Your task to perform on an android device: Clear all items from cart on target.com. Search for "asus rog" on target.com, select the first entry, add it to the cart, then select checkout. Image 0: 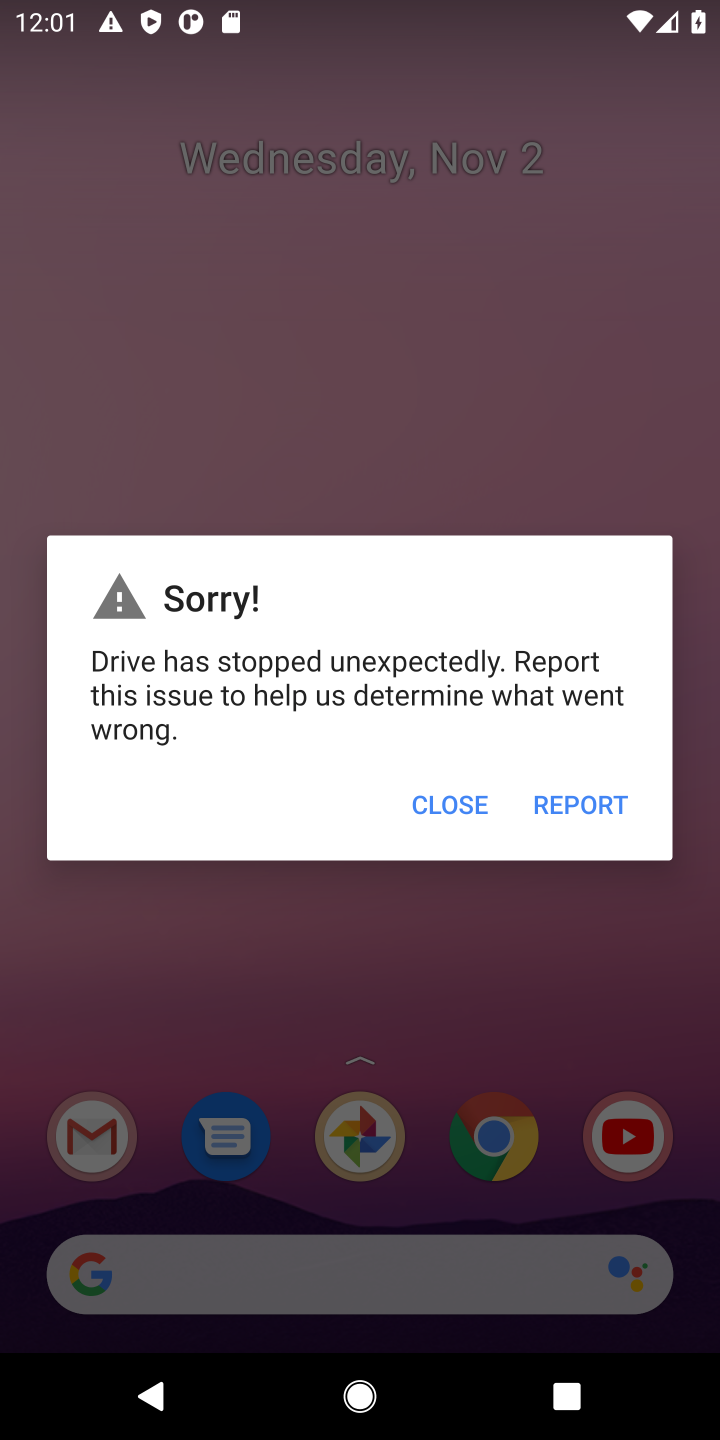
Step 0: click (455, 816)
Your task to perform on an android device: Clear all items from cart on target.com. Search for "asus rog" on target.com, select the first entry, add it to the cart, then select checkout. Image 1: 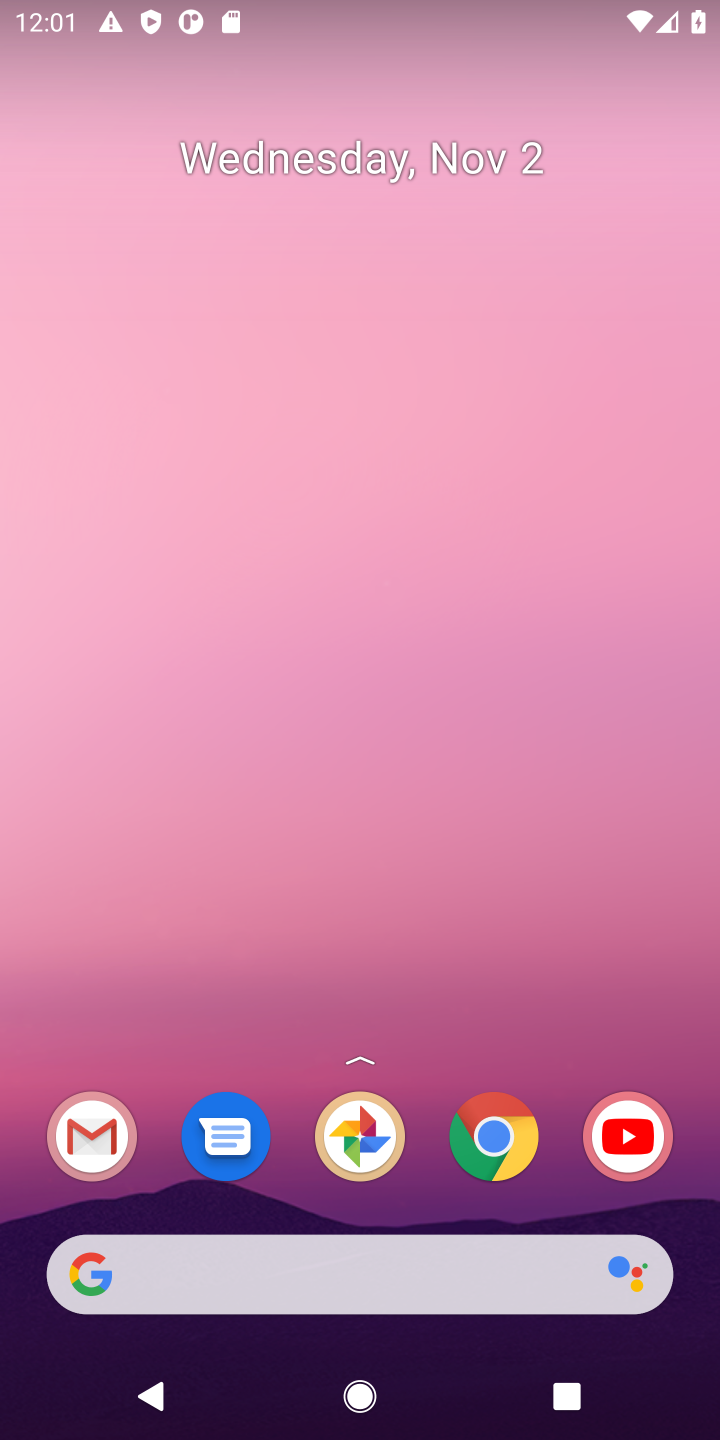
Step 1: click (491, 1151)
Your task to perform on an android device: Clear all items from cart on target.com. Search for "asus rog" on target.com, select the first entry, add it to the cart, then select checkout. Image 2: 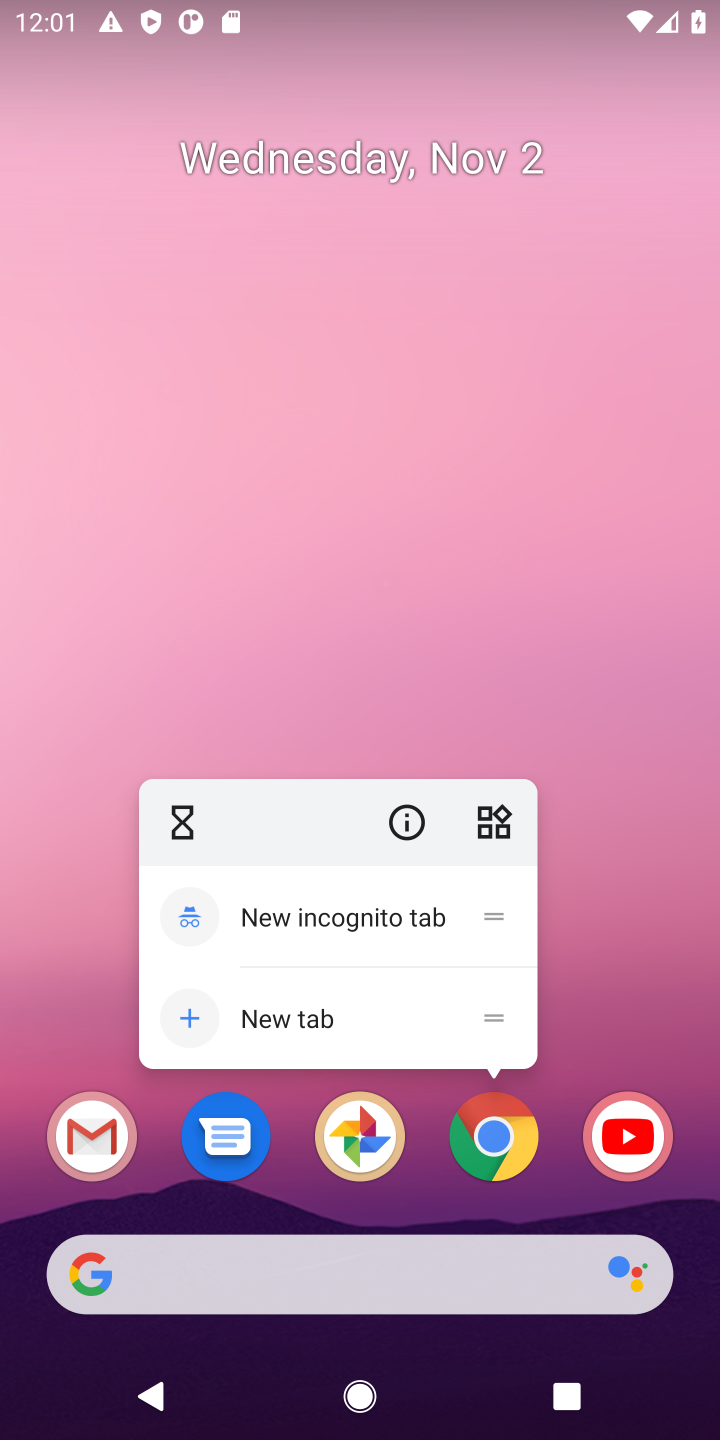
Step 2: click (504, 1137)
Your task to perform on an android device: Clear all items from cart on target.com. Search for "asus rog" on target.com, select the first entry, add it to the cart, then select checkout. Image 3: 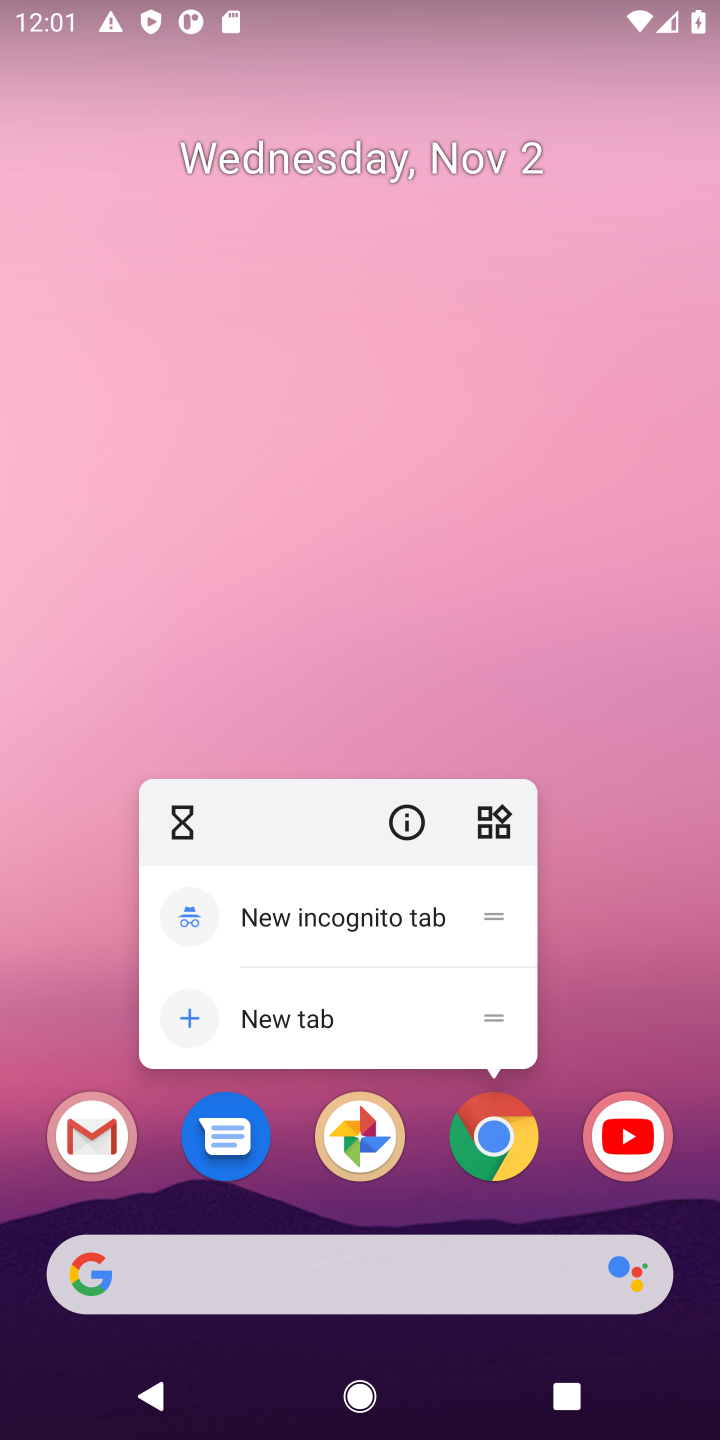
Step 3: click (491, 1138)
Your task to perform on an android device: Clear all items from cart on target.com. Search for "asus rog" on target.com, select the first entry, add it to the cart, then select checkout. Image 4: 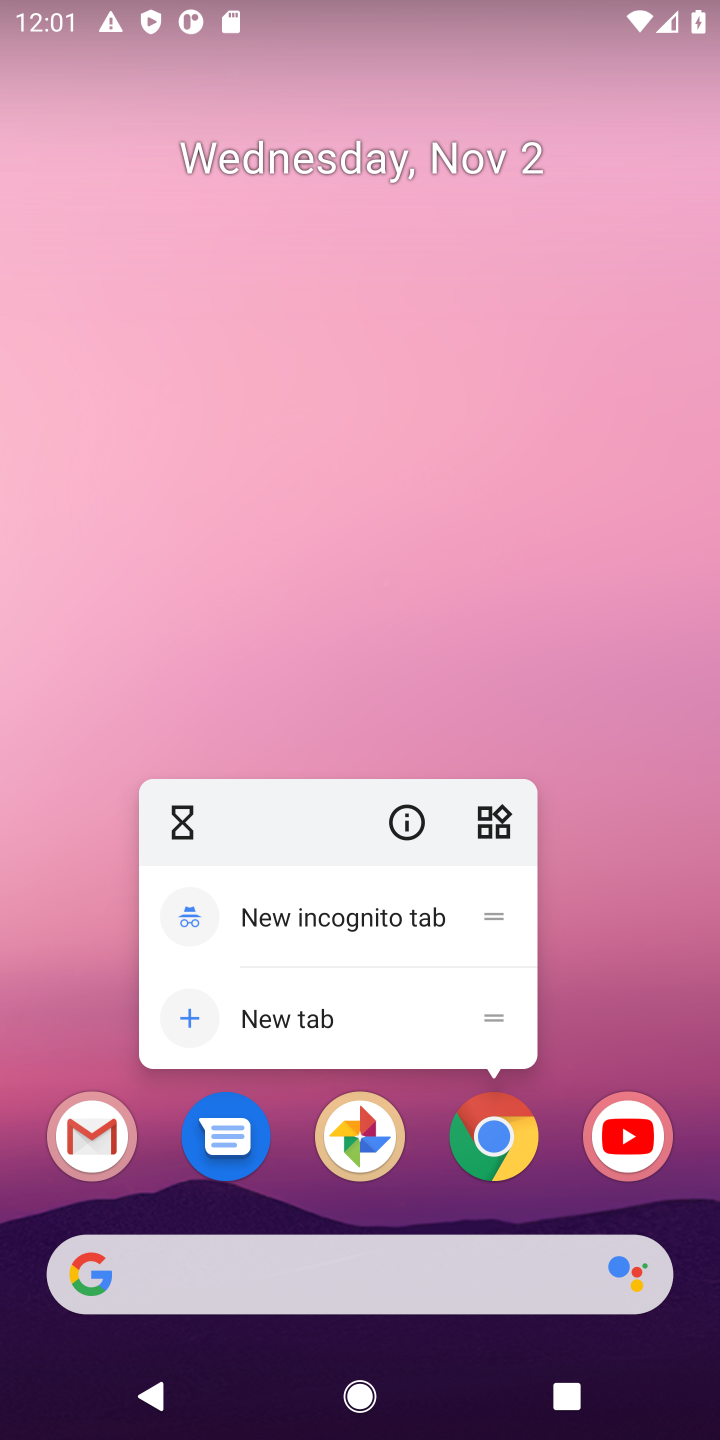
Step 4: click (496, 1143)
Your task to perform on an android device: Clear all items from cart on target.com. Search for "asus rog" on target.com, select the first entry, add it to the cart, then select checkout. Image 5: 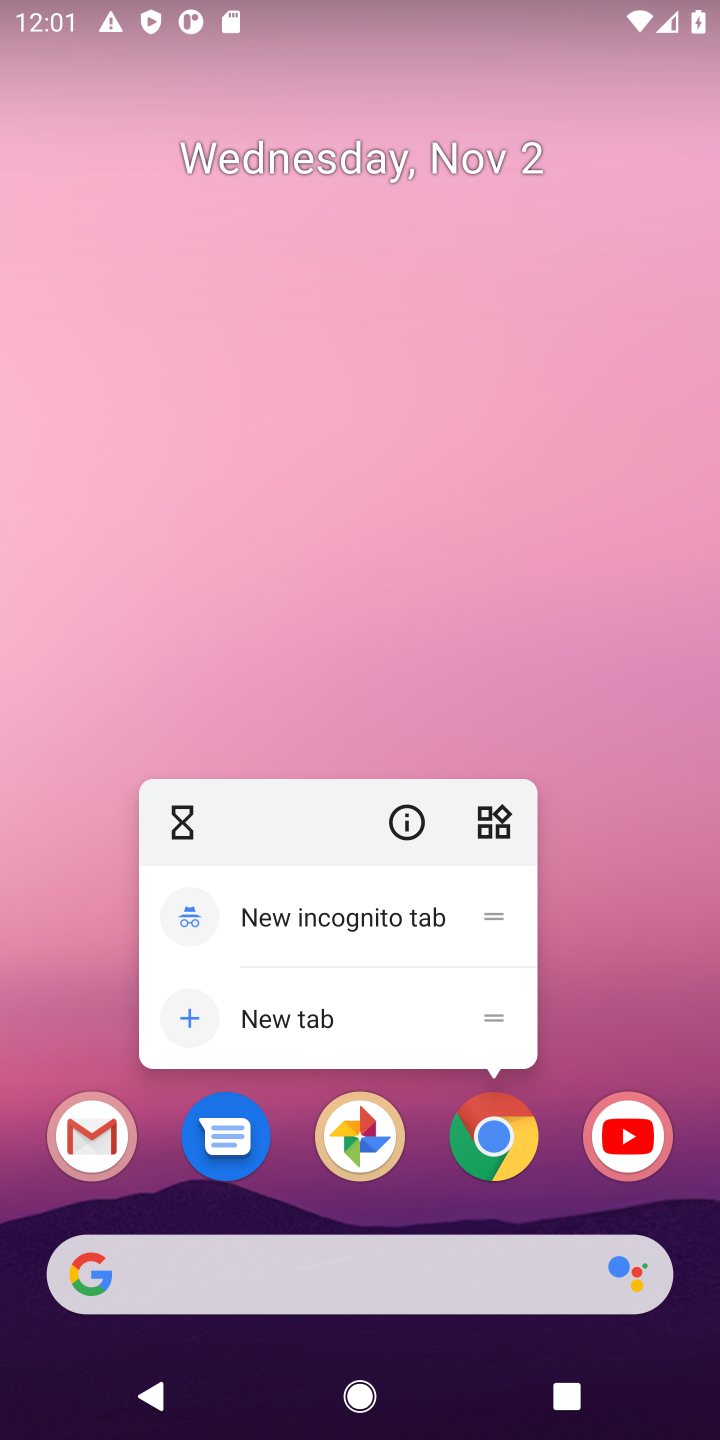
Step 5: click (496, 1143)
Your task to perform on an android device: Clear all items from cart on target.com. Search for "asus rog" on target.com, select the first entry, add it to the cart, then select checkout. Image 6: 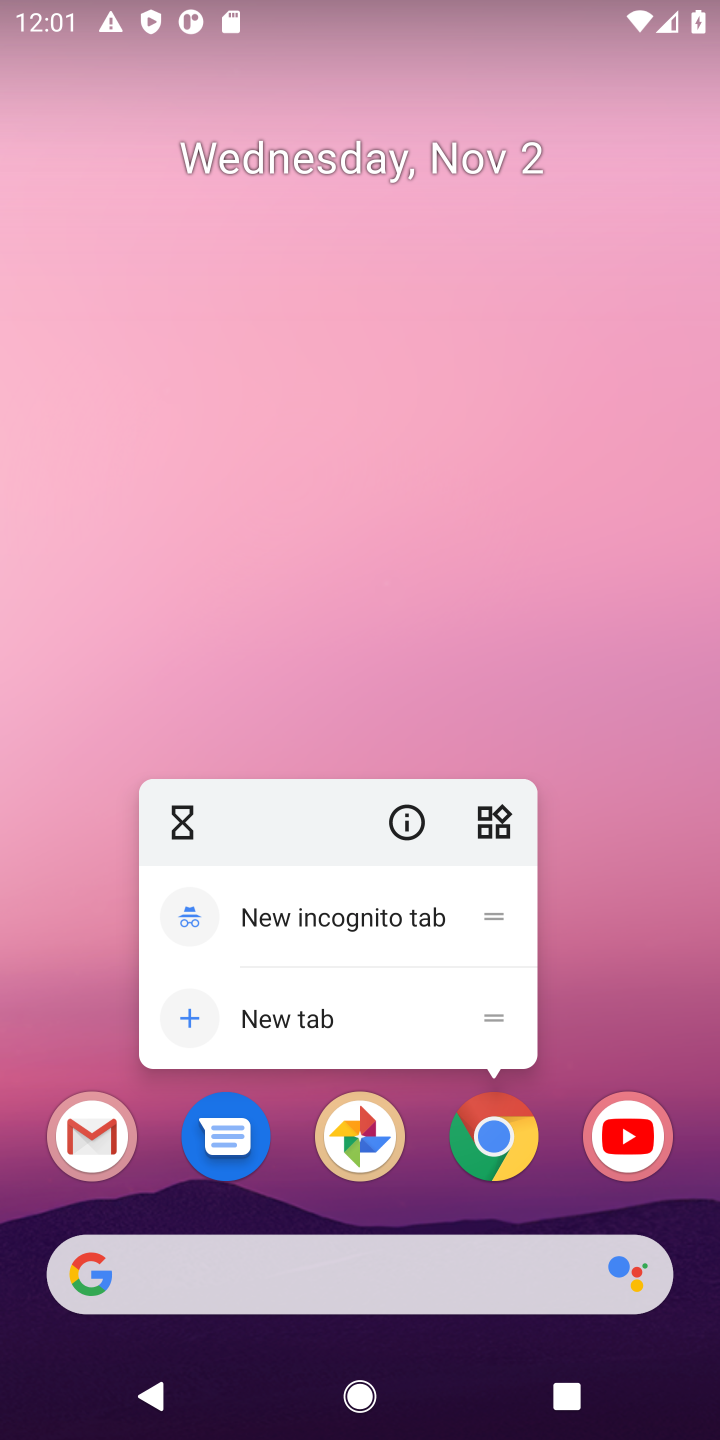
Step 6: click (496, 1143)
Your task to perform on an android device: Clear all items from cart on target.com. Search for "asus rog" on target.com, select the first entry, add it to the cart, then select checkout. Image 7: 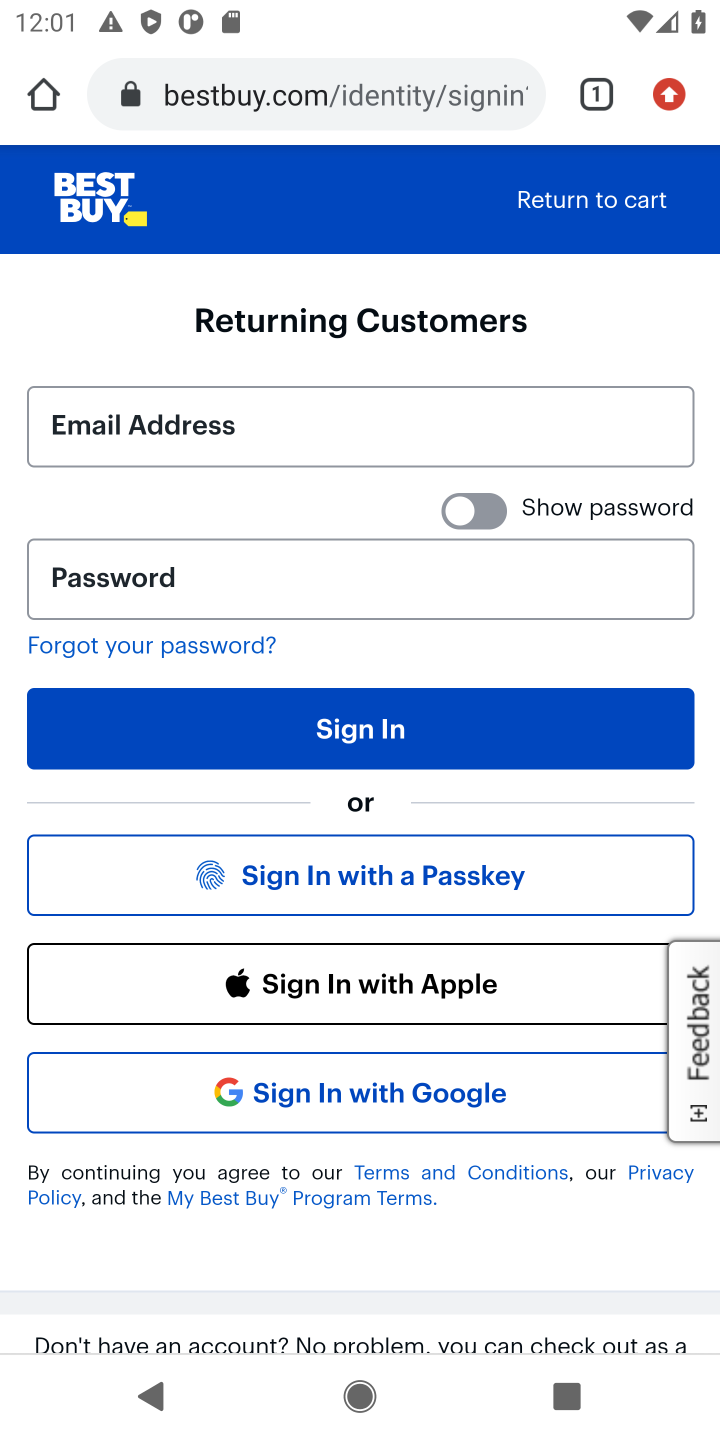
Step 7: click (306, 103)
Your task to perform on an android device: Clear all items from cart on target.com. Search for "asus rog" on target.com, select the first entry, add it to the cart, then select checkout. Image 8: 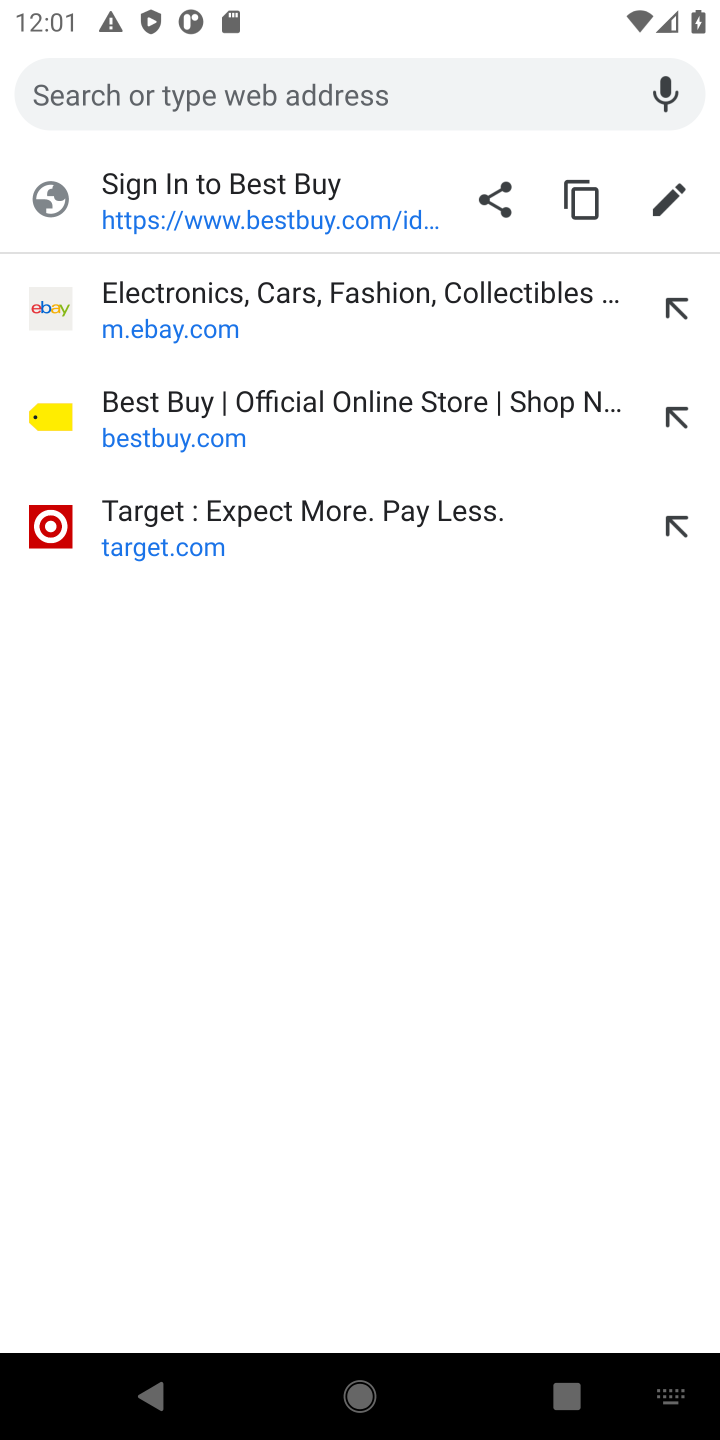
Step 8: click (157, 530)
Your task to perform on an android device: Clear all items from cart on target.com. Search for "asus rog" on target.com, select the first entry, add it to the cart, then select checkout. Image 9: 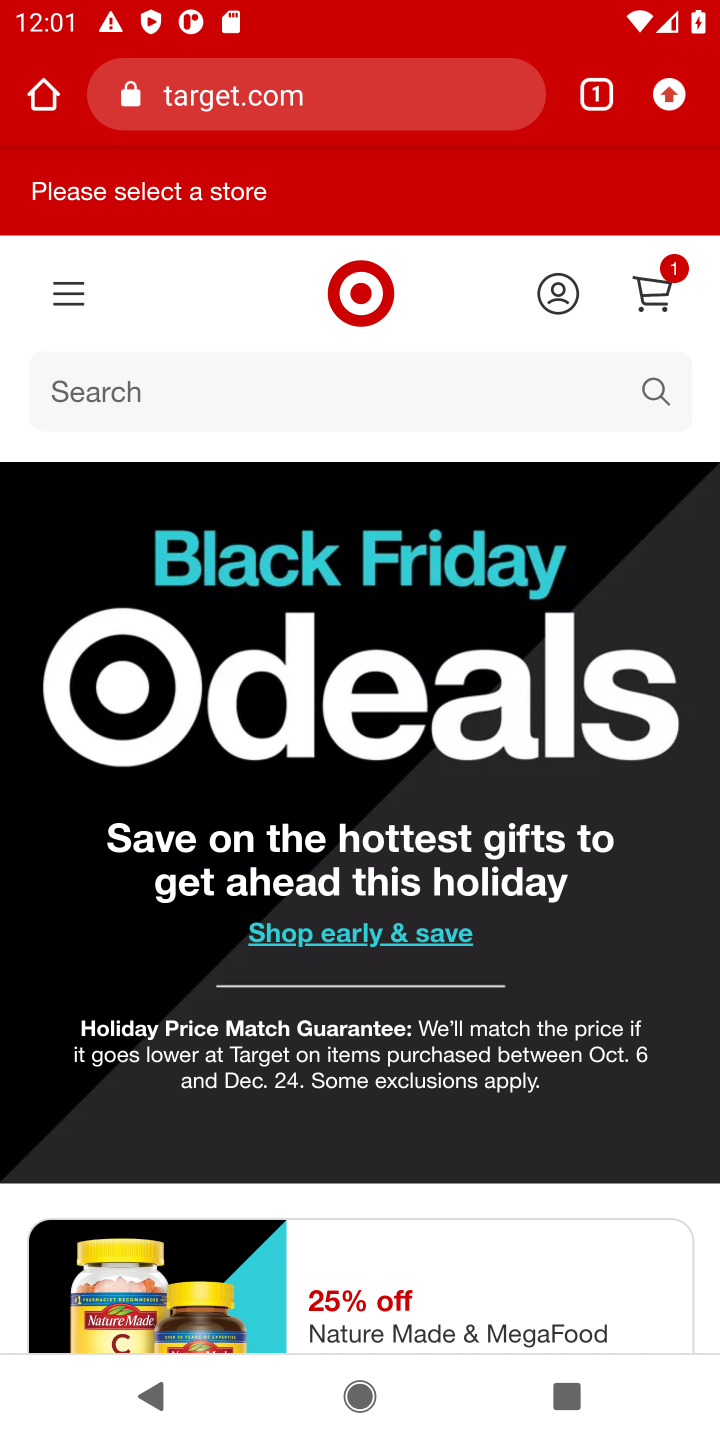
Step 9: click (644, 294)
Your task to perform on an android device: Clear all items from cart on target.com. Search for "asus rog" on target.com, select the first entry, add it to the cart, then select checkout. Image 10: 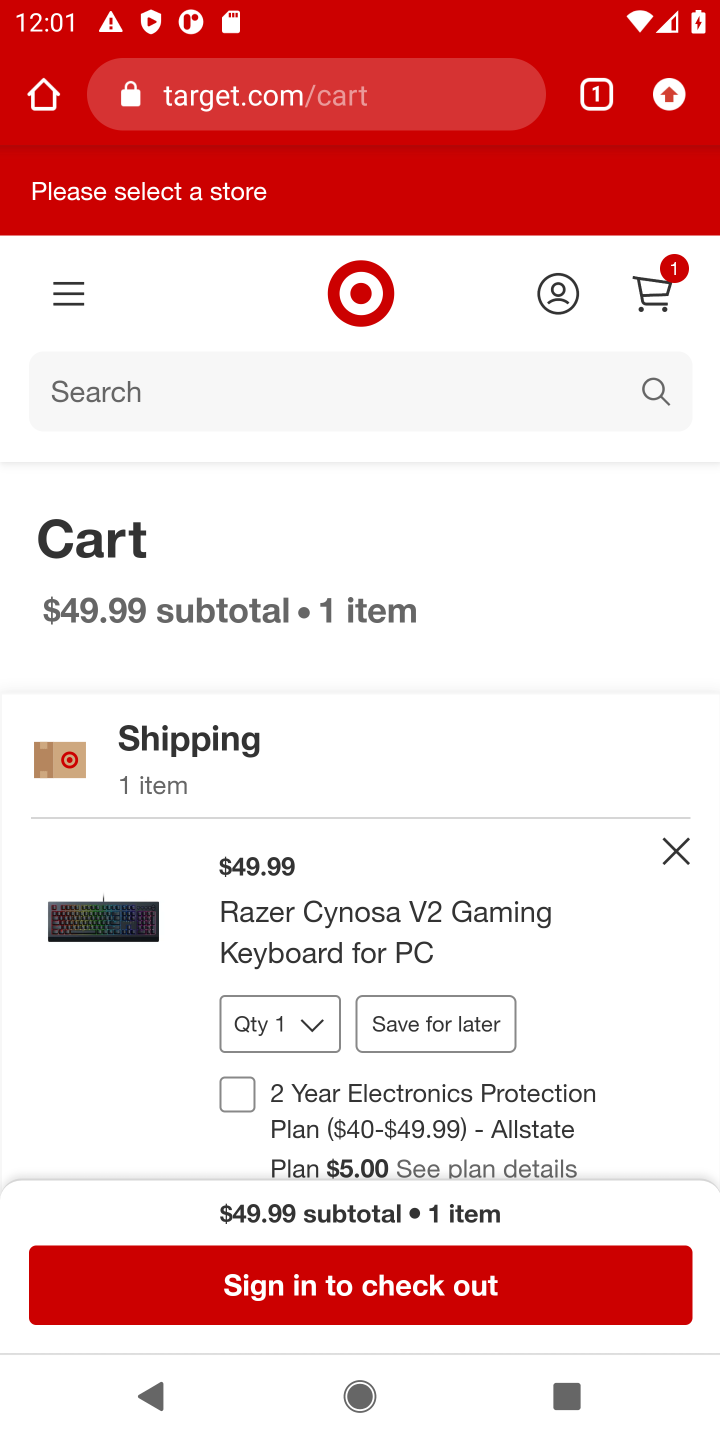
Step 10: click (286, 1031)
Your task to perform on an android device: Clear all items from cart on target.com. Search for "asus rog" on target.com, select the first entry, add it to the cart, then select checkout. Image 11: 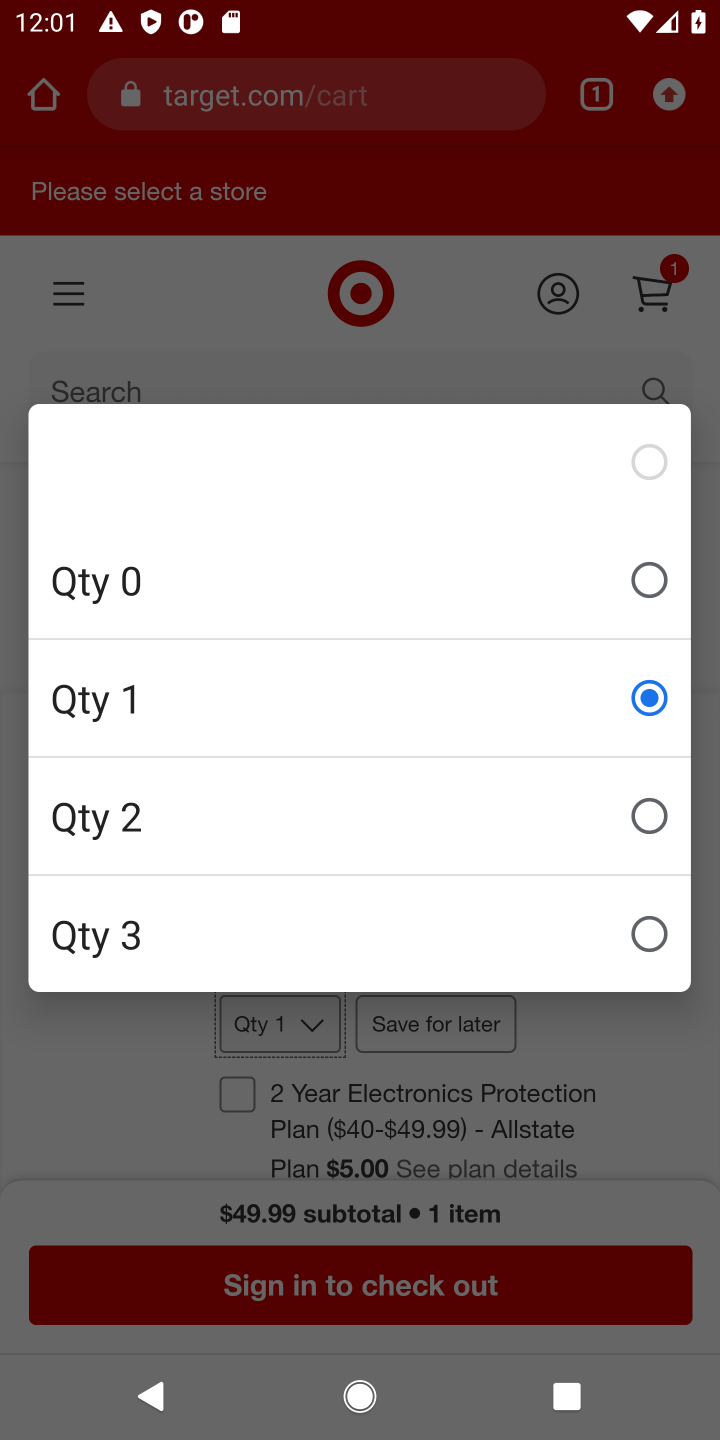
Step 11: click (348, 592)
Your task to perform on an android device: Clear all items from cart on target.com. Search for "asus rog" on target.com, select the first entry, add it to the cart, then select checkout. Image 12: 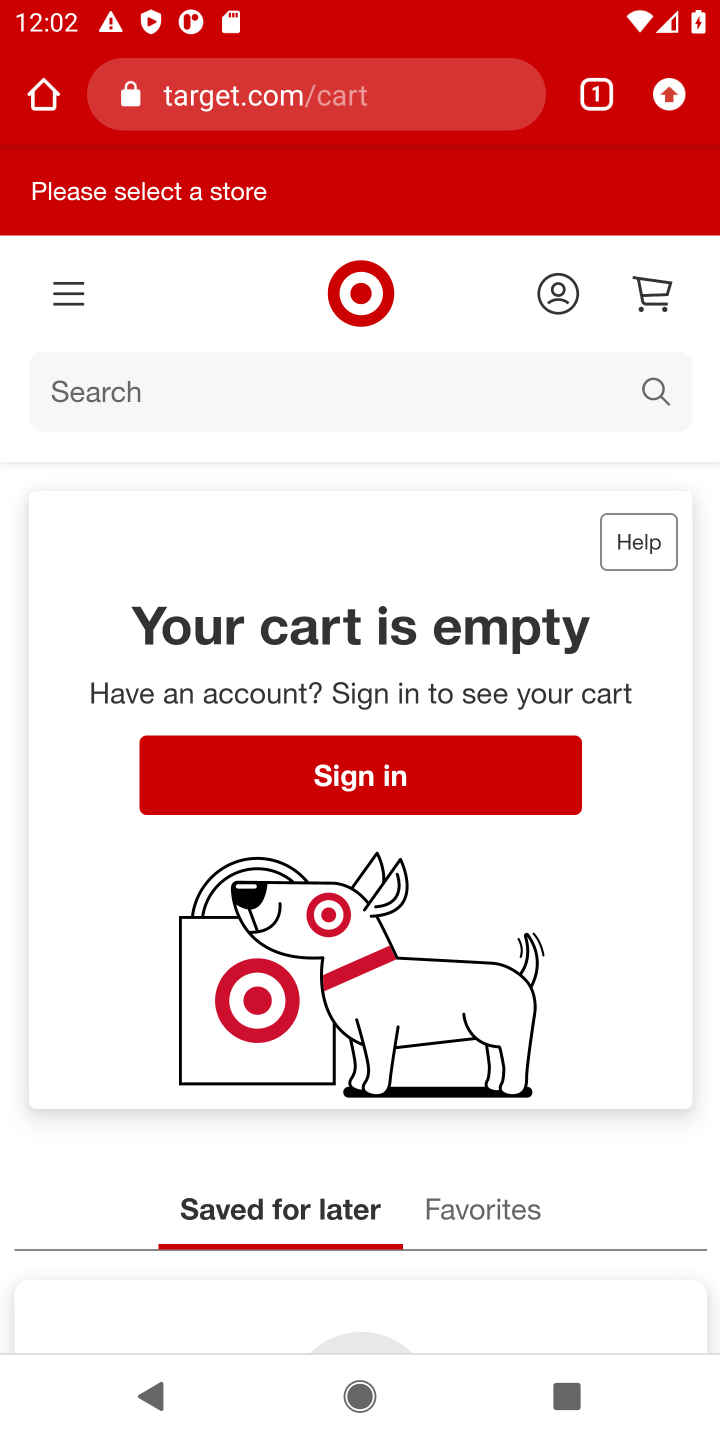
Step 12: click (379, 401)
Your task to perform on an android device: Clear all items from cart on target.com. Search for "asus rog" on target.com, select the first entry, add it to the cart, then select checkout. Image 13: 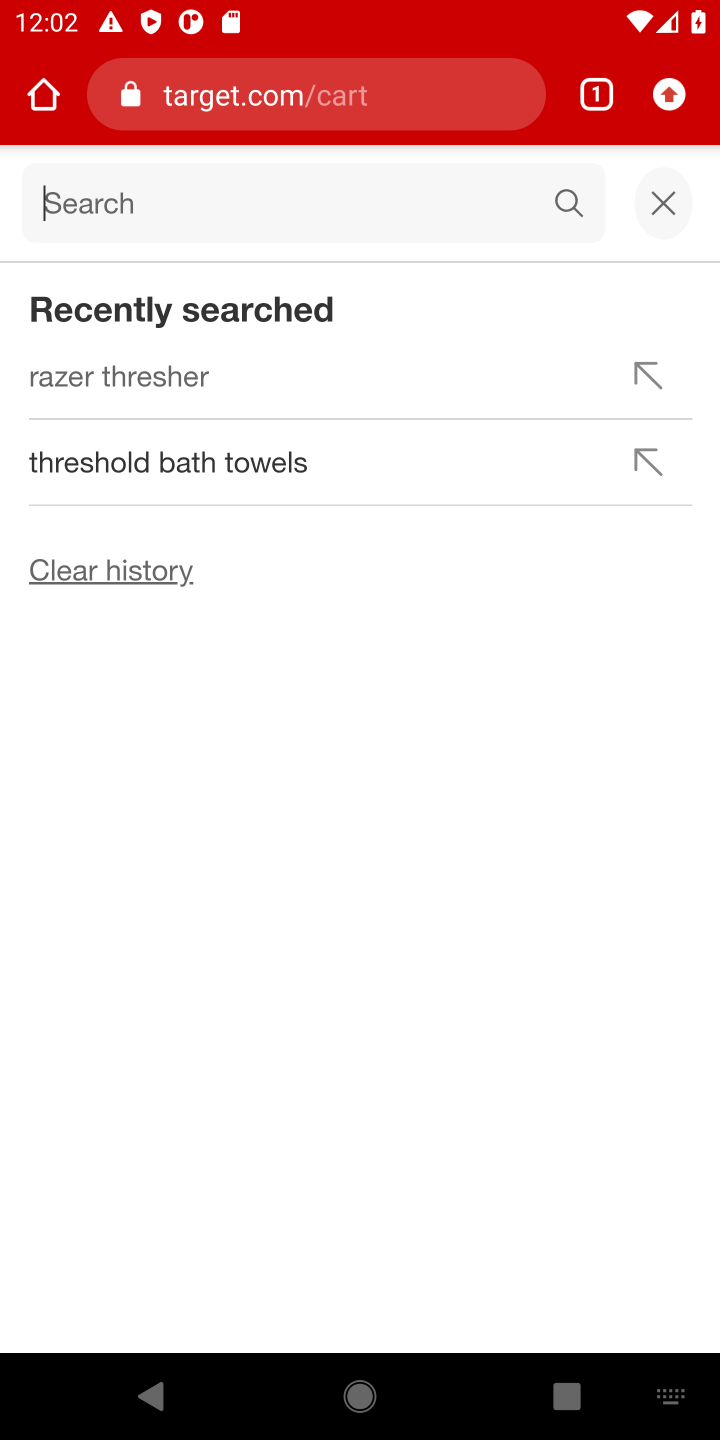
Step 13: type "asus rog"
Your task to perform on an android device: Clear all items from cart on target.com. Search for "asus rog" on target.com, select the first entry, add it to the cart, then select checkout. Image 14: 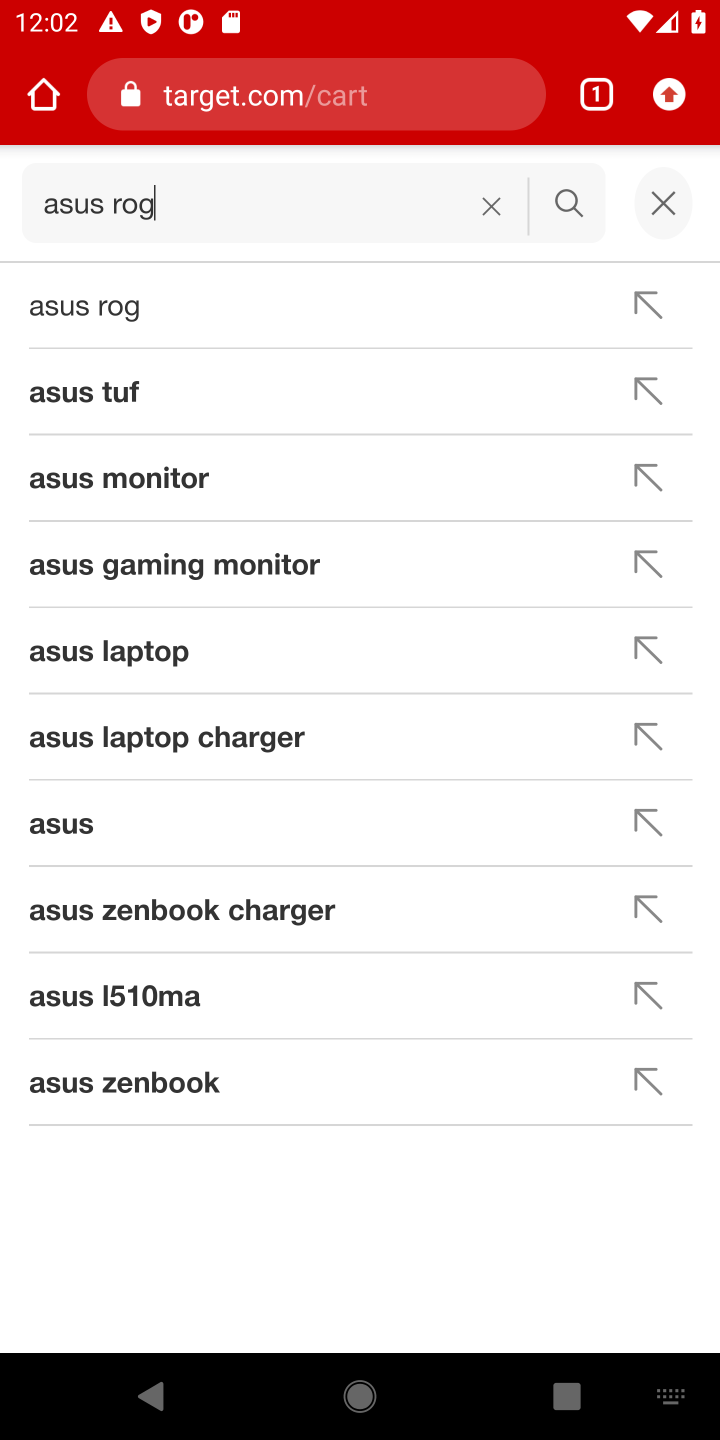
Step 14: click (105, 314)
Your task to perform on an android device: Clear all items from cart on target.com. Search for "asus rog" on target.com, select the first entry, add it to the cart, then select checkout. Image 15: 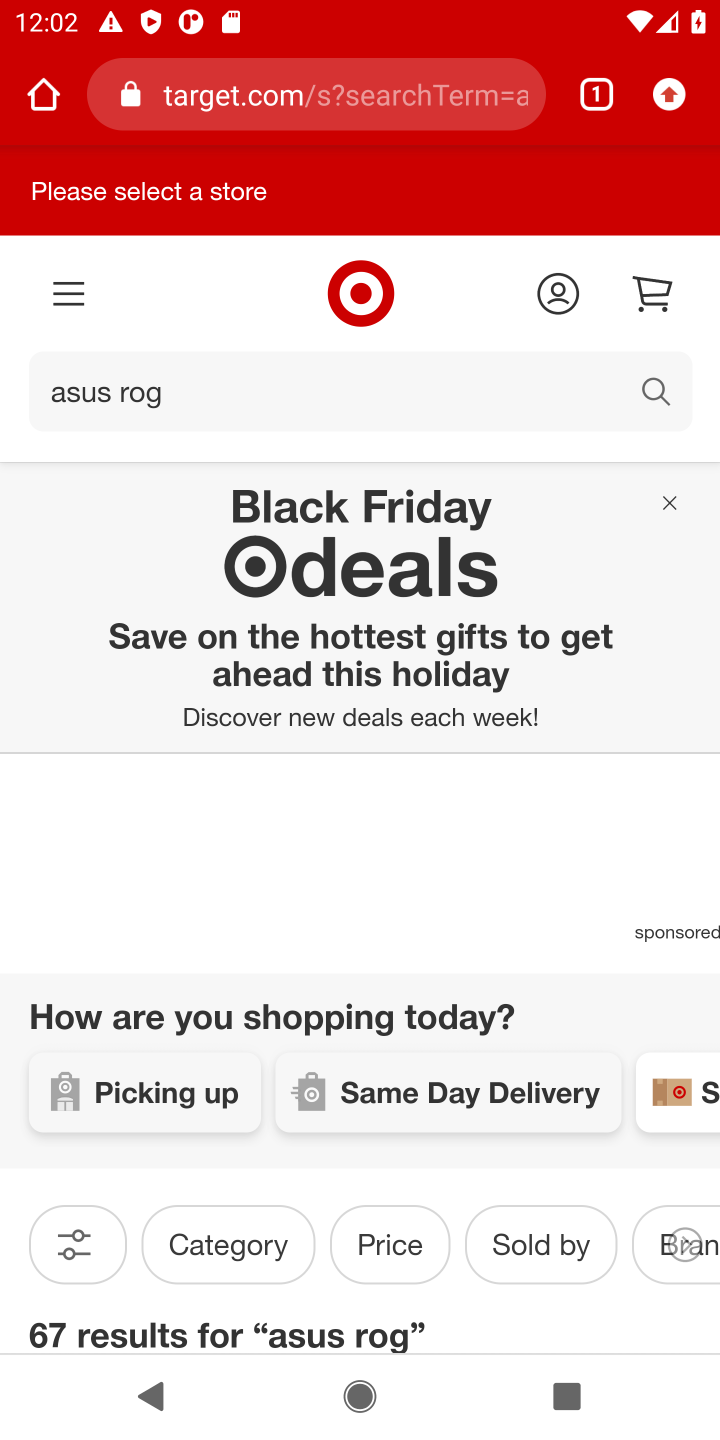
Step 15: drag from (440, 1120) to (472, 370)
Your task to perform on an android device: Clear all items from cart on target.com. Search for "asus rog" on target.com, select the first entry, add it to the cart, then select checkout. Image 16: 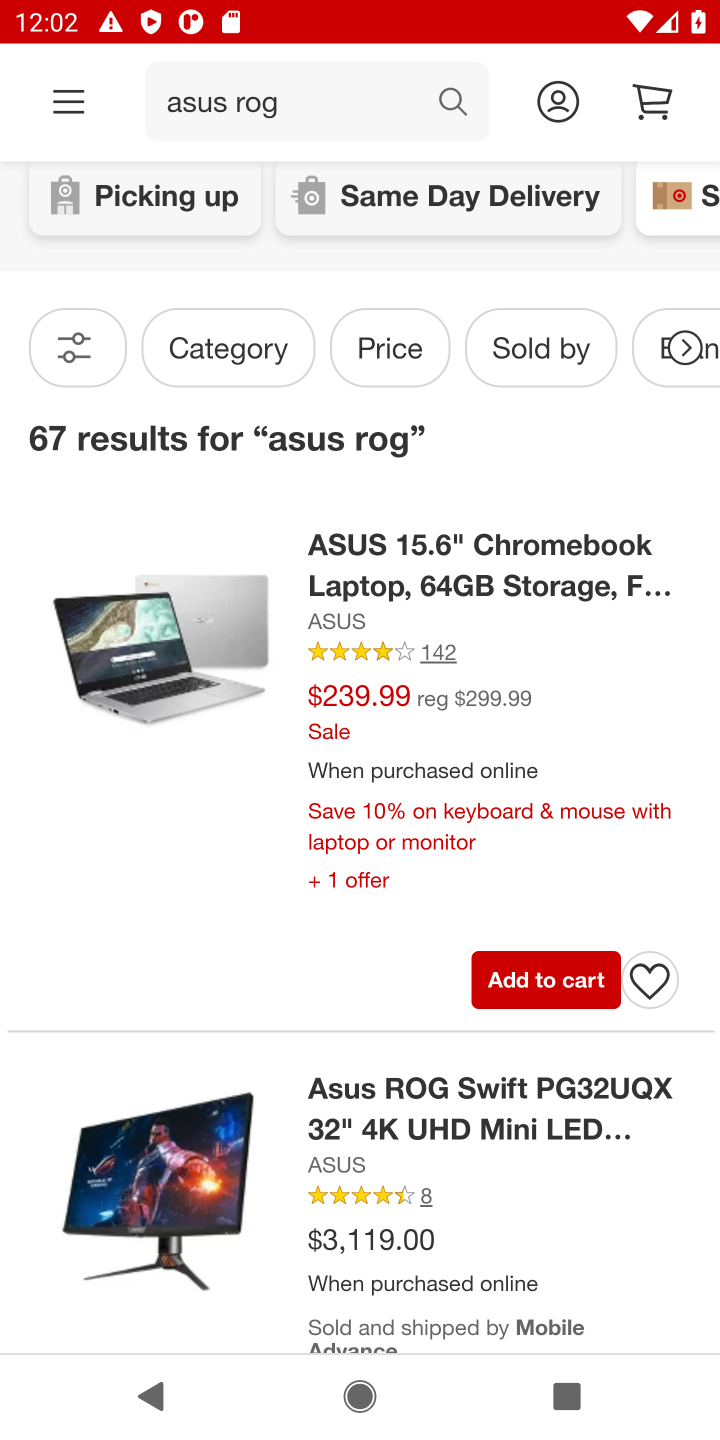
Step 16: click (508, 1002)
Your task to perform on an android device: Clear all items from cart on target.com. Search for "asus rog" on target.com, select the first entry, add it to the cart, then select checkout. Image 17: 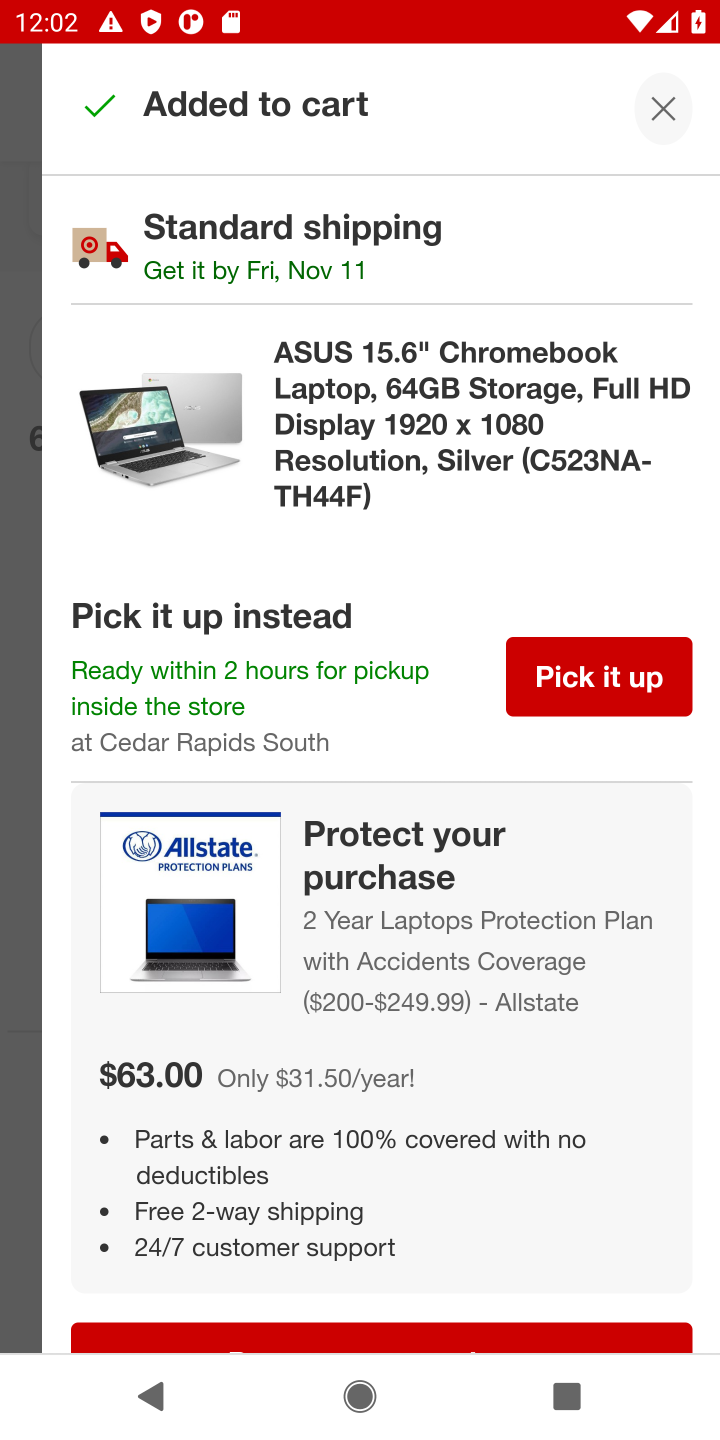
Step 17: click (671, 89)
Your task to perform on an android device: Clear all items from cart on target.com. Search for "asus rog" on target.com, select the first entry, add it to the cart, then select checkout. Image 18: 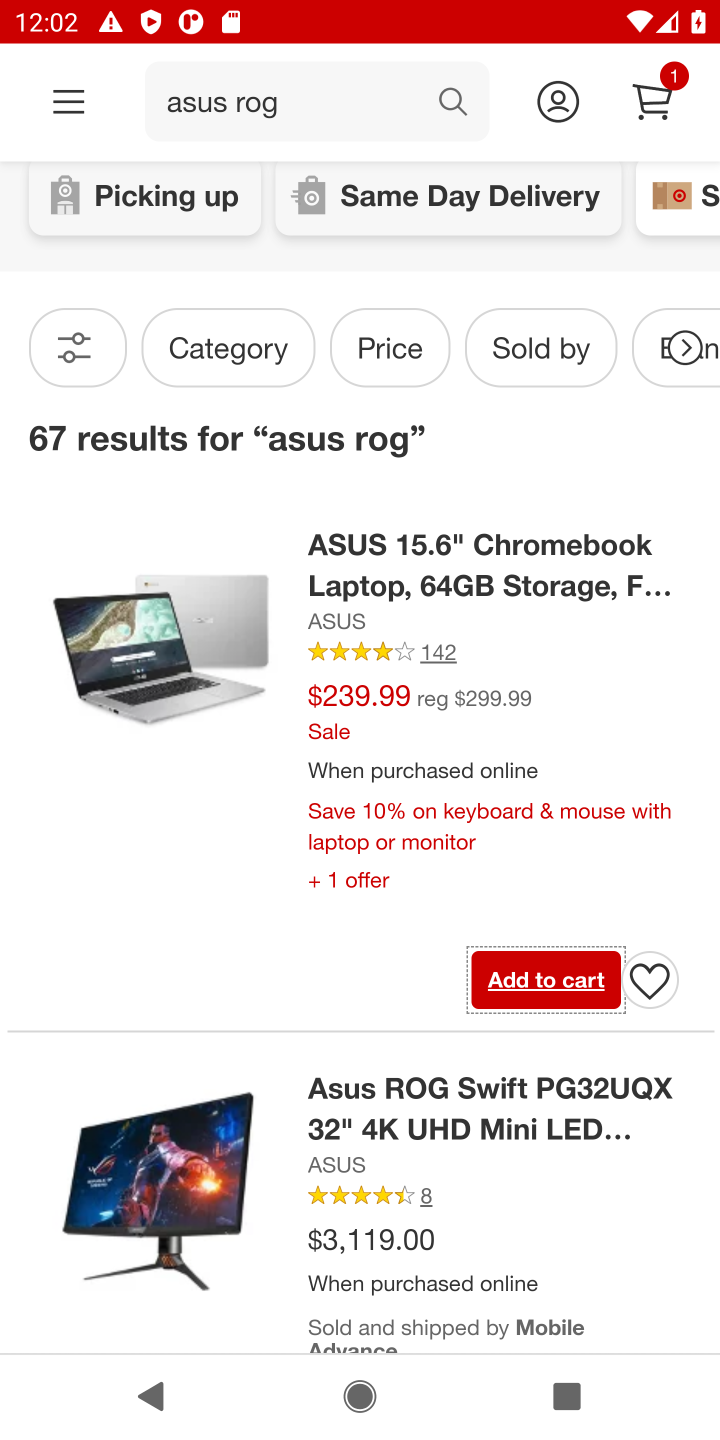
Step 18: drag from (508, 1121) to (491, 546)
Your task to perform on an android device: Clear all items from cart on target.com. Search for "asus rog" on target.com, select the first entry, add it to the cart, then select checkout. Image 19: 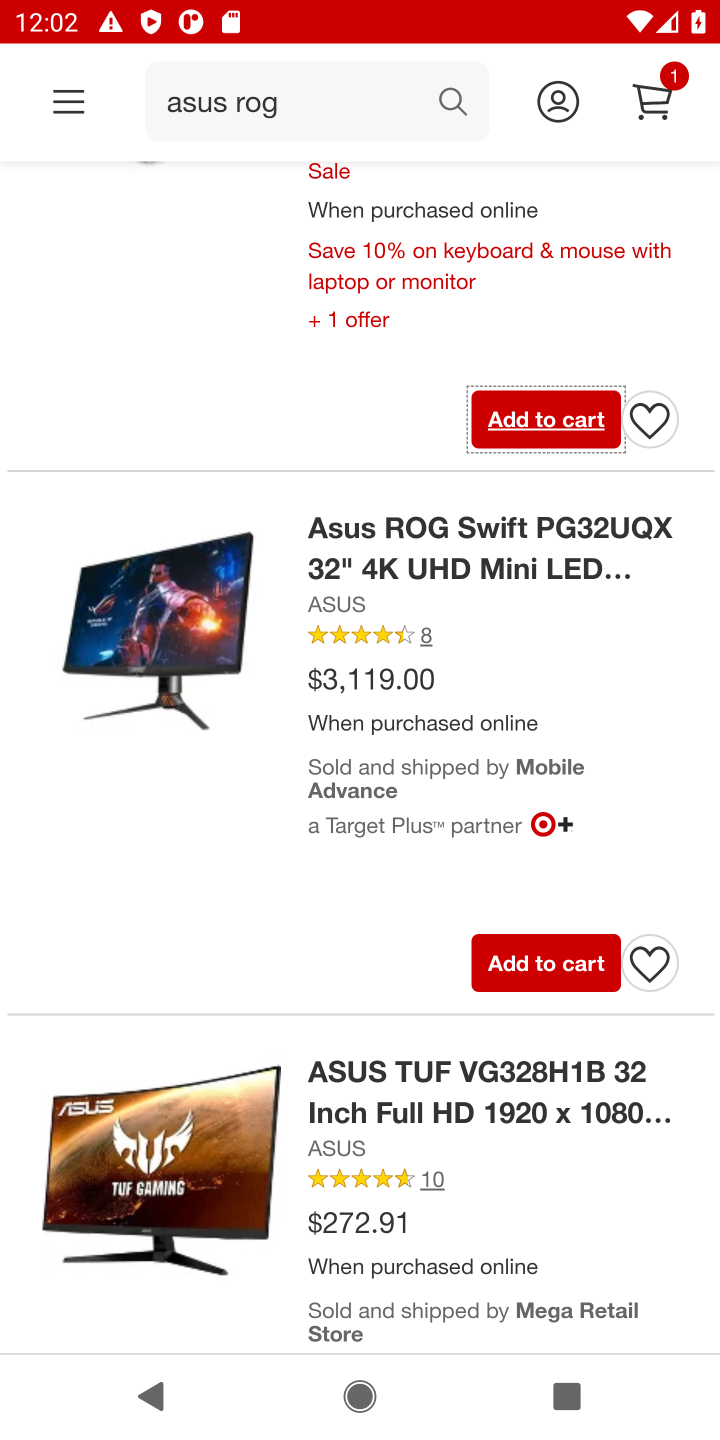
Step 19: click (541, 990)
Your task to perform on an android device: Clear all items from cart on target.com. Search for "asus rog" on target.com, select the first entry, add it to the cart, then select checkout. Image 20: 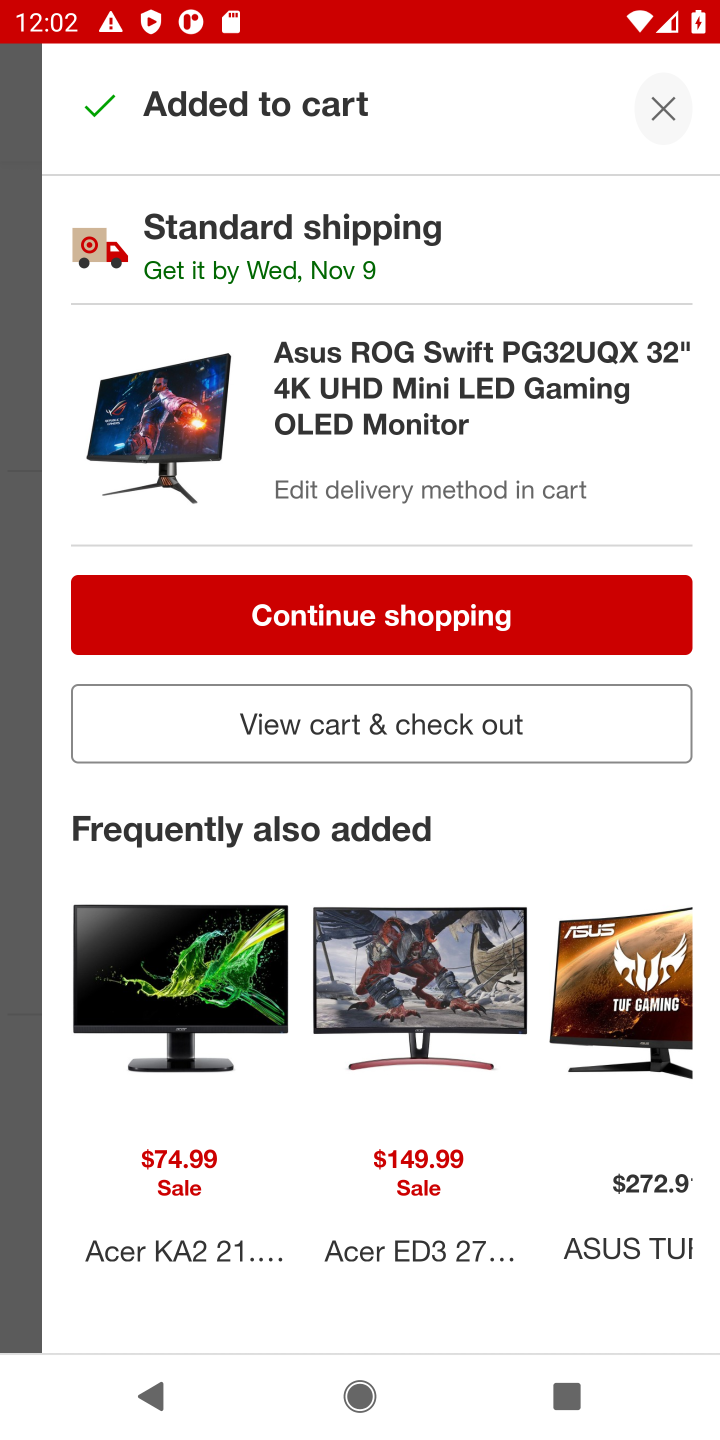
Step 20: click (461, 725)
Your task to perform on an android device: Clear all items from cart on target.com. Search for "asus rog" on target.com, select the first entry, add it to the cart, then select checkout. Image 21: 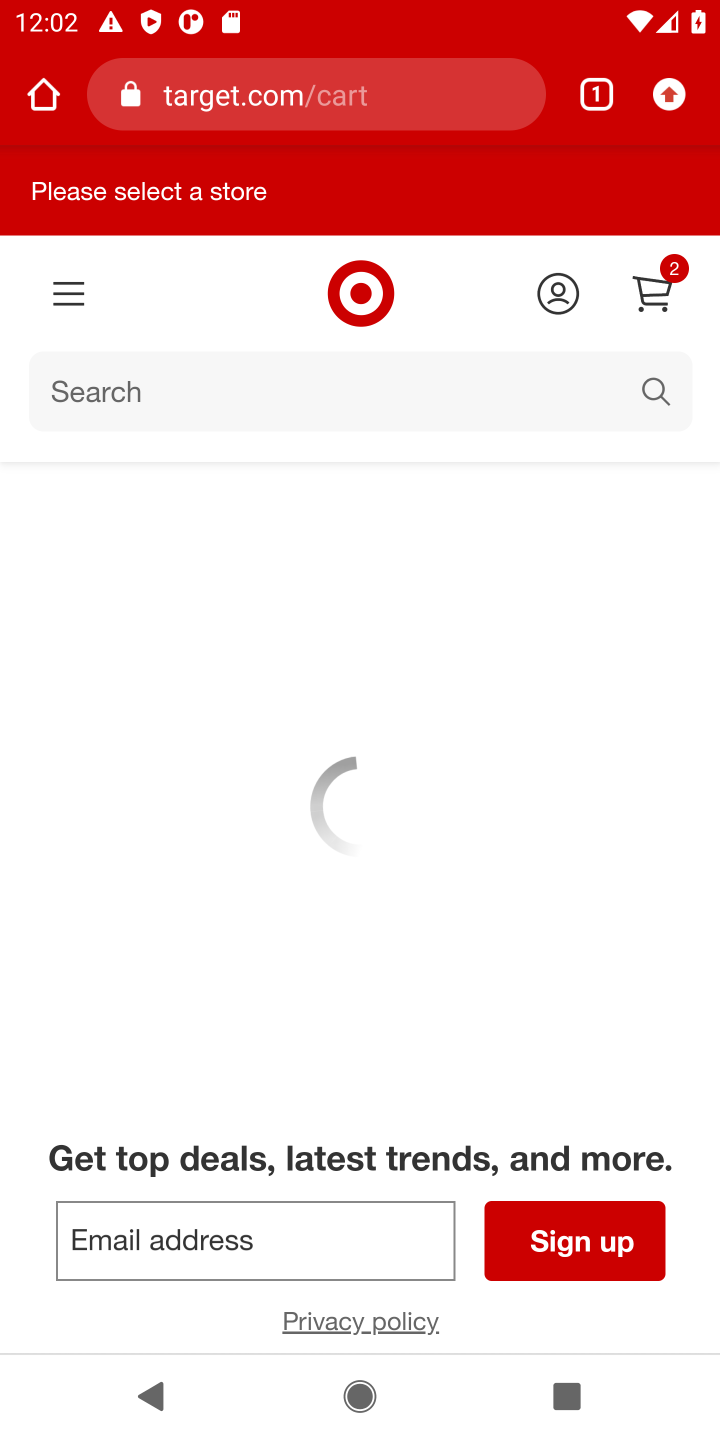
Step 21: click (645, 281)
Your task to perform on an android device: Clear all items from cart on target.com. Search for "asus rog" on target.com, select the first entry, add it to the cart, then select checkout. Image 22: 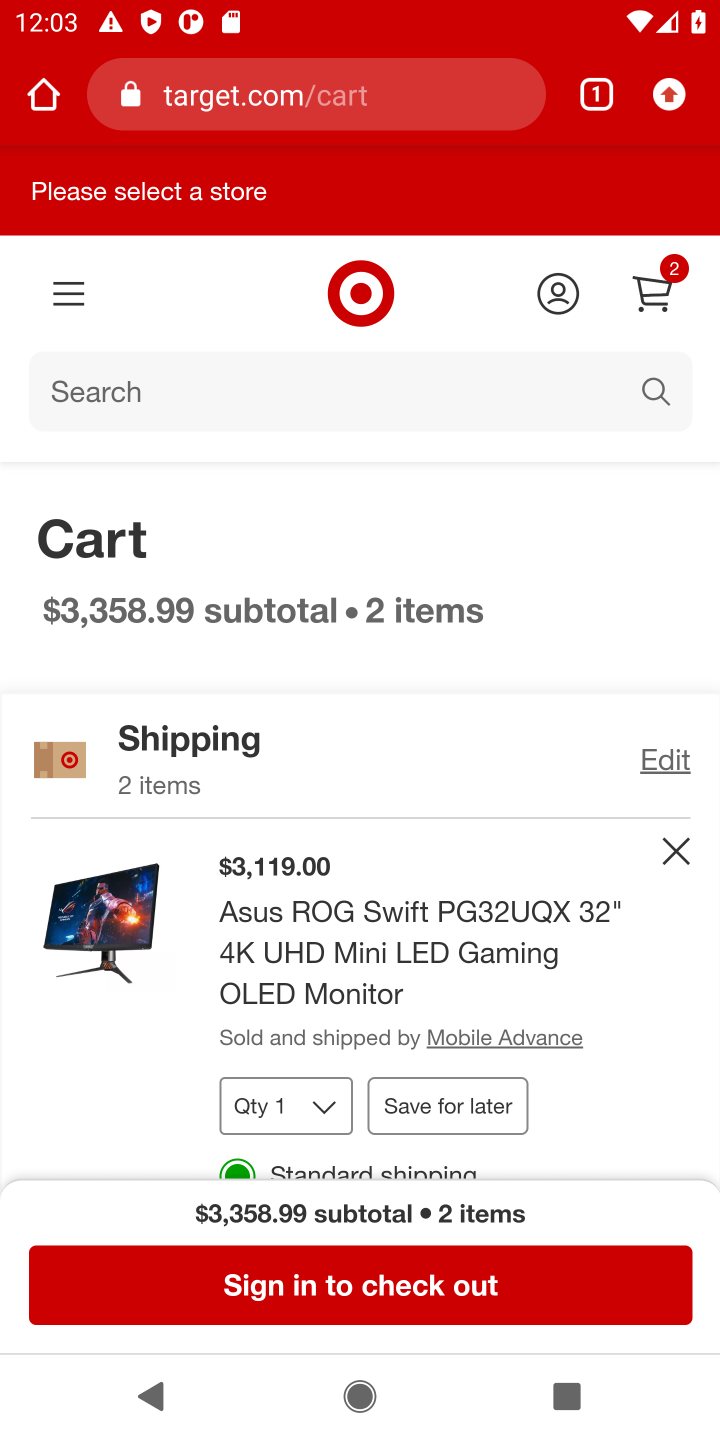
Step 22: drag from (503, 989) to (533, 549)
Your task to perform on an android device: Clear all items from cart on target.com. Search for "asus rog" on target.com, select the first entry, add it to the cart, then select checkout. Image 23: 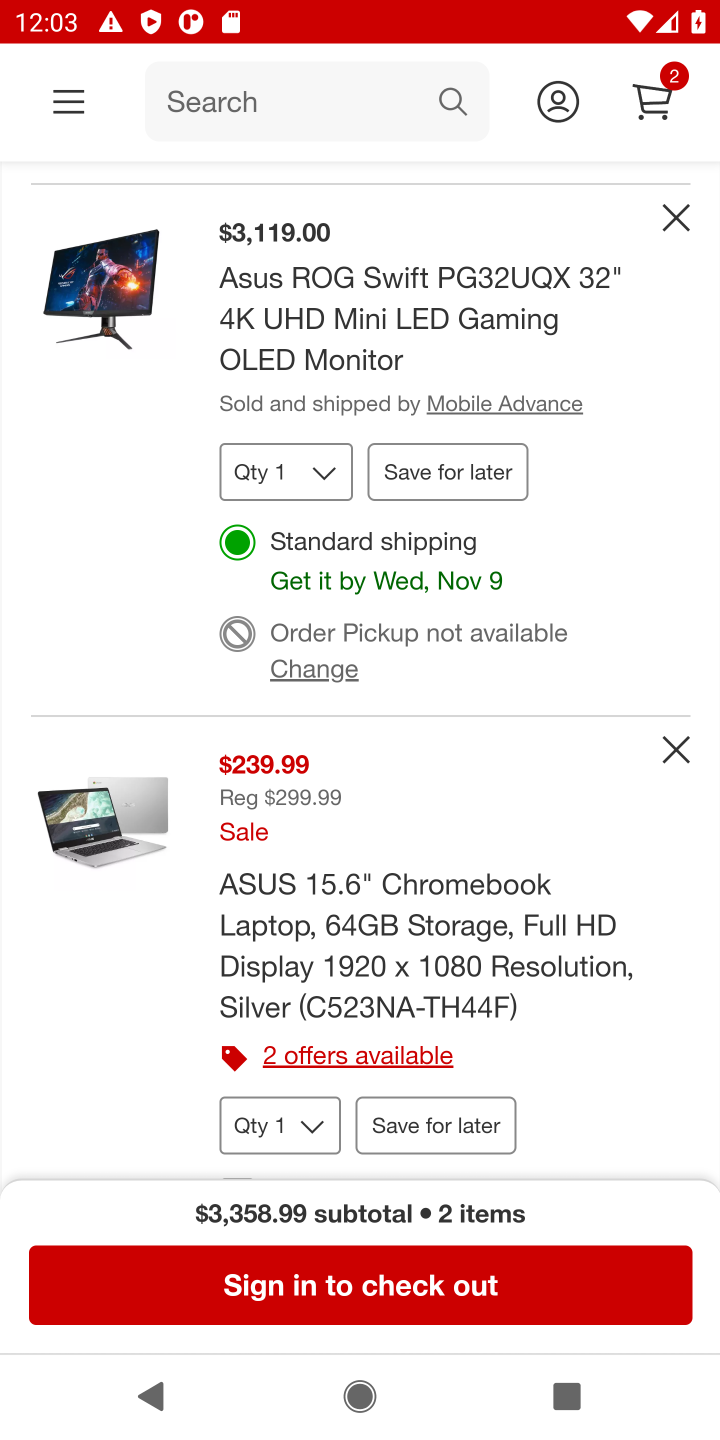
Step 23: click (662, 958)
Your task to perform on an android device: Clear all items from cart on target.com. Search for "asus rog" on target.com, select the first entry, add it to the cart, then select checkout. Image 24: 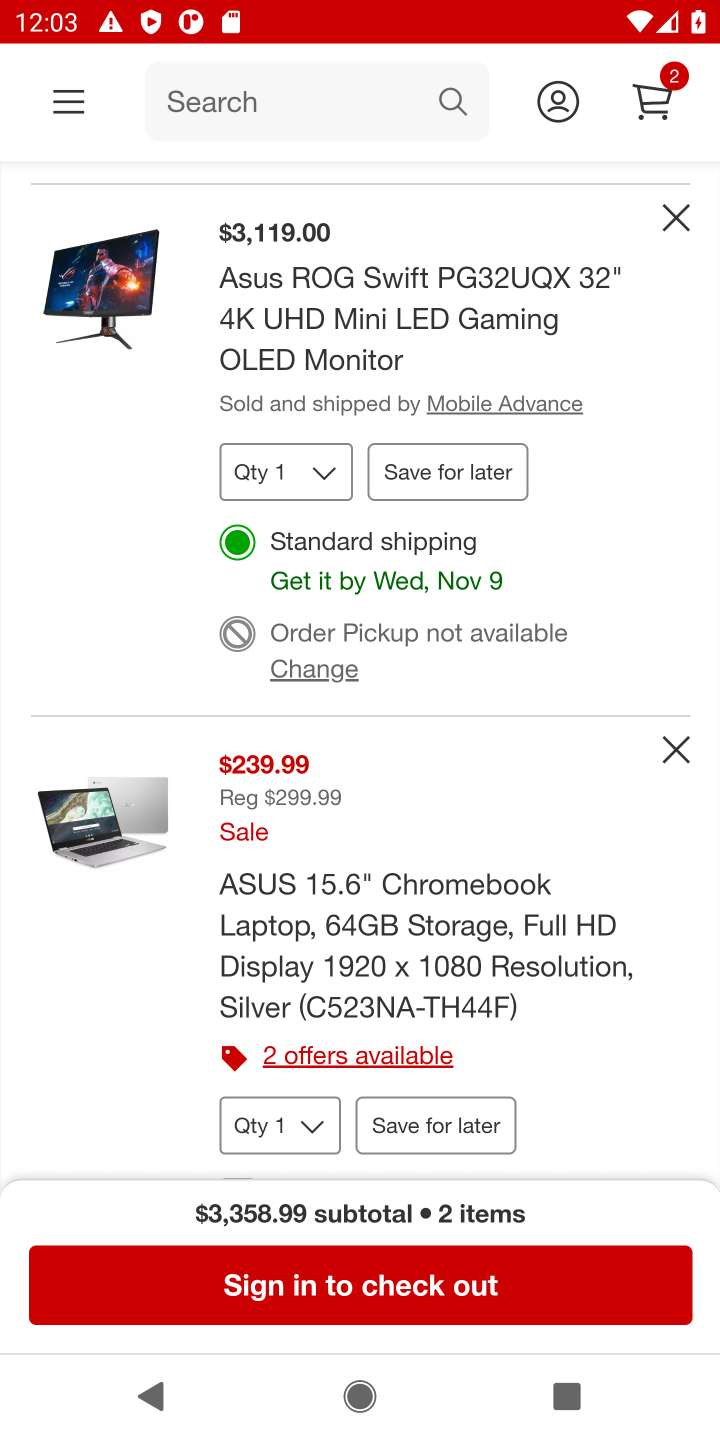
Step 24: click (659, 735)
Your task to perform on an android device: Clear all items from cart on target.com. Search for "asus rog" on target.com, select the first entry, add it to the cart, then select checkout. Image 25: 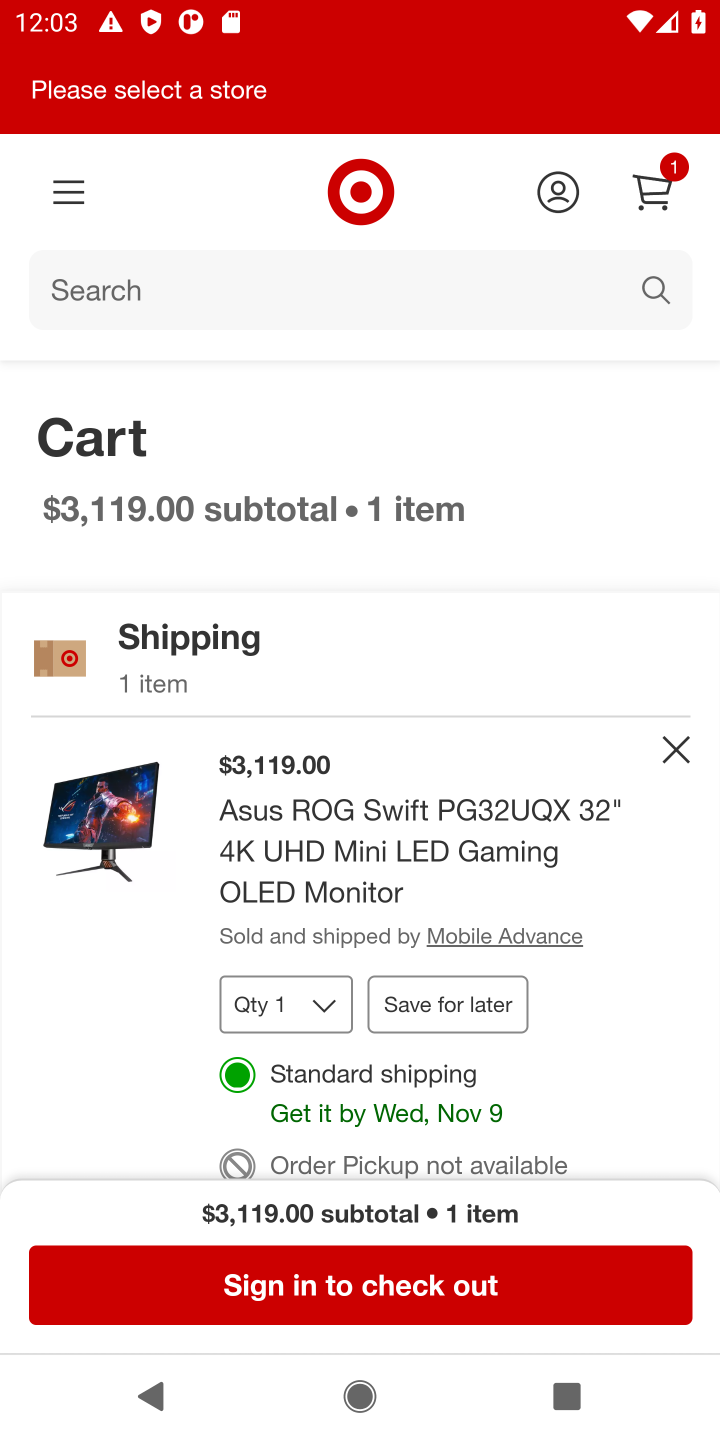
Step 25: click (462, 1245)
Your task to perform on an android device: Clear all items from cart on target.com. Search for "asus rog" on target.com, select the first entry, add it to the cart, then select checkout. Image 26: 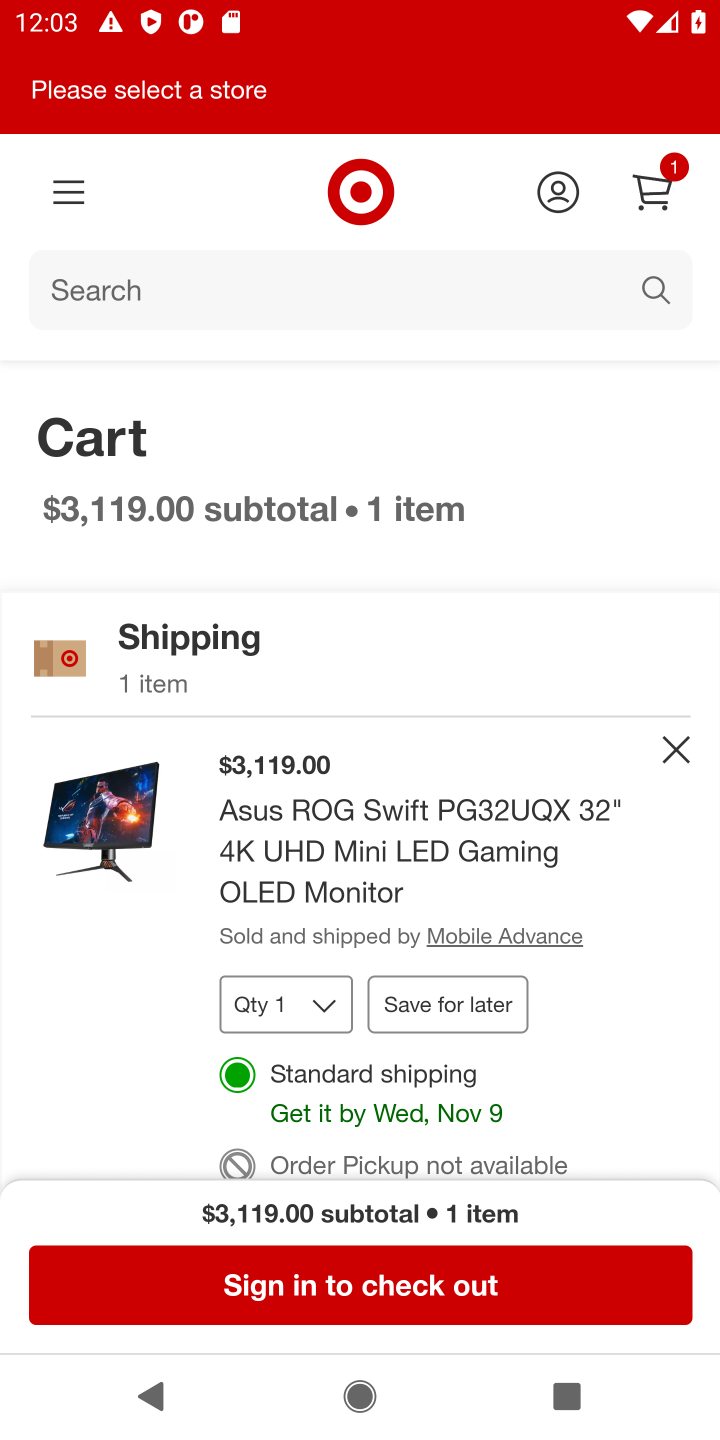
Step 26: click (461, 1259)
Your task to perform on an android device: Clear all items from cart on target.com. Search for "asus rog" on target.com, select the first entry, add it to the cart, then select checkout. Image 27: 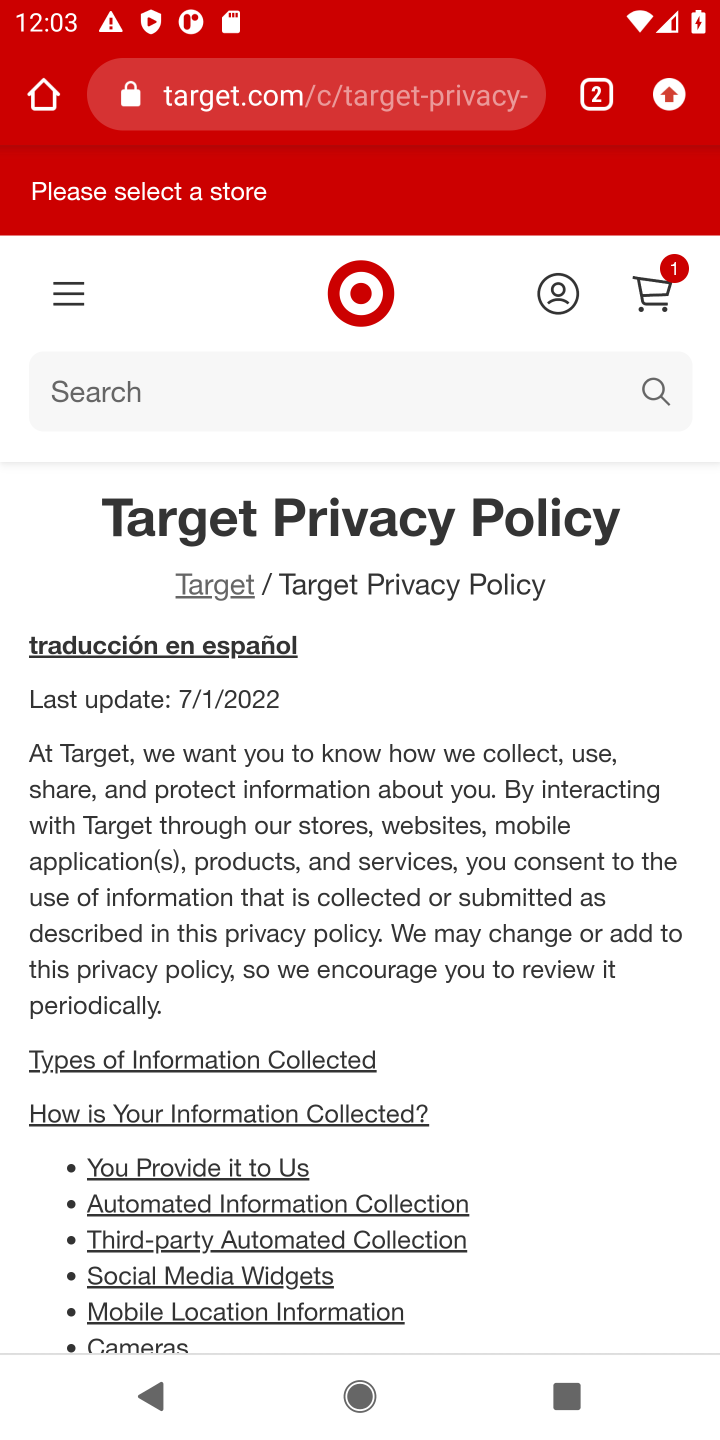
Step 27: drag from (476, 1076) to (500, 569)
Your task to perform on an android device: Clear all items from cart on target.com. Search for "asus rog" on target.com, select the first entry, add it to the cart, then select checkout. Image 28: 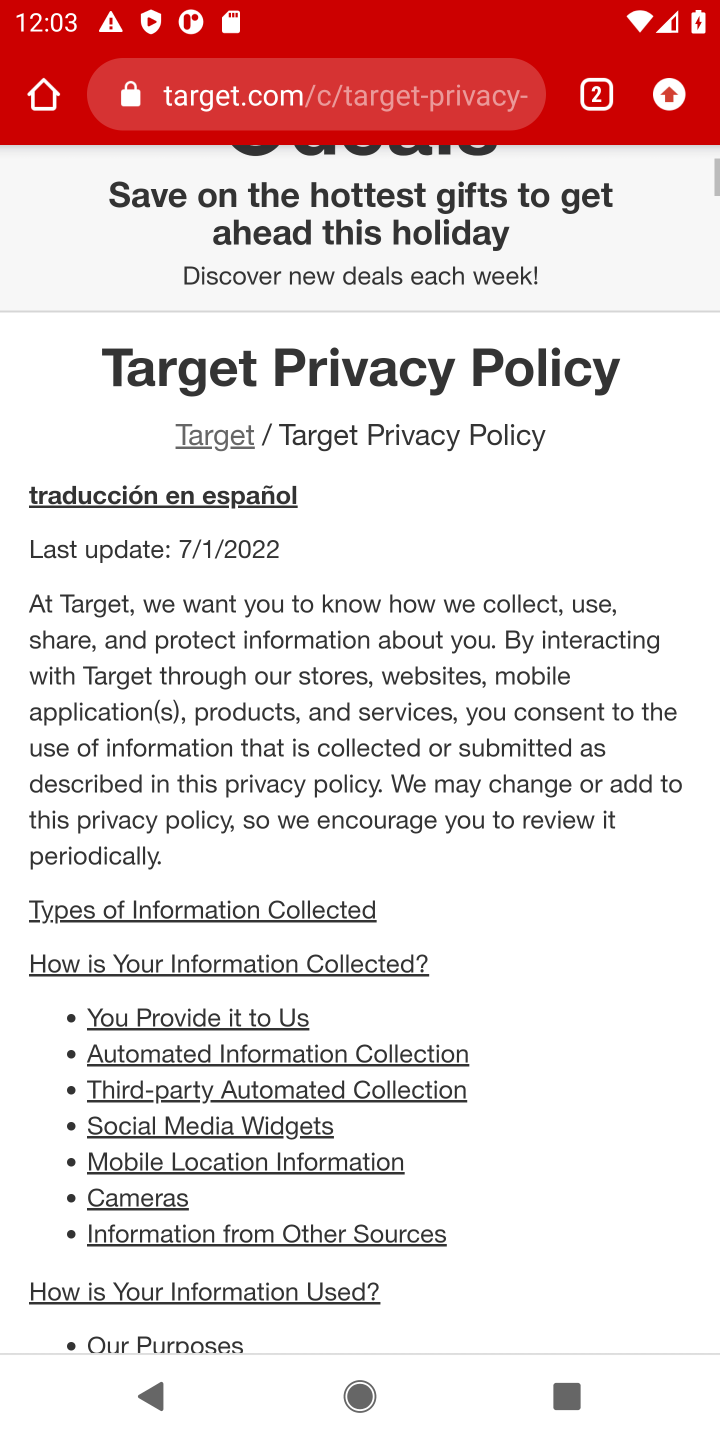
Step 28: click (420, 571)
Your task to perform on an android device: Clear all items from cart on target.com. Search for "asus rog" on target.com, select the first entry, add it to the cart, then select checkout. Image 29: 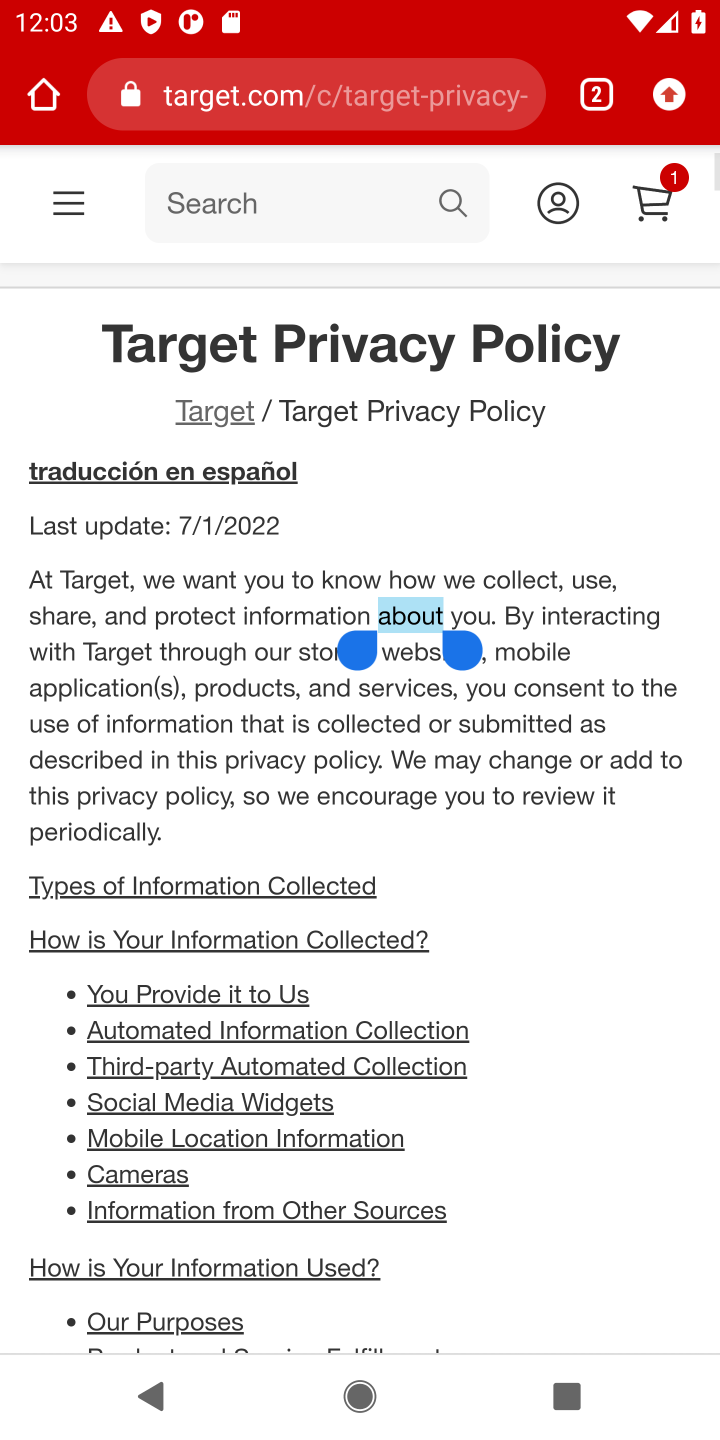
Step 29: click (484, 638)
Your task to perform on an android device: Clear all items from cart on target.com. Search for "asus rog" on target.com, select the first entry, add it to the cart, then select checkout. Image 30: 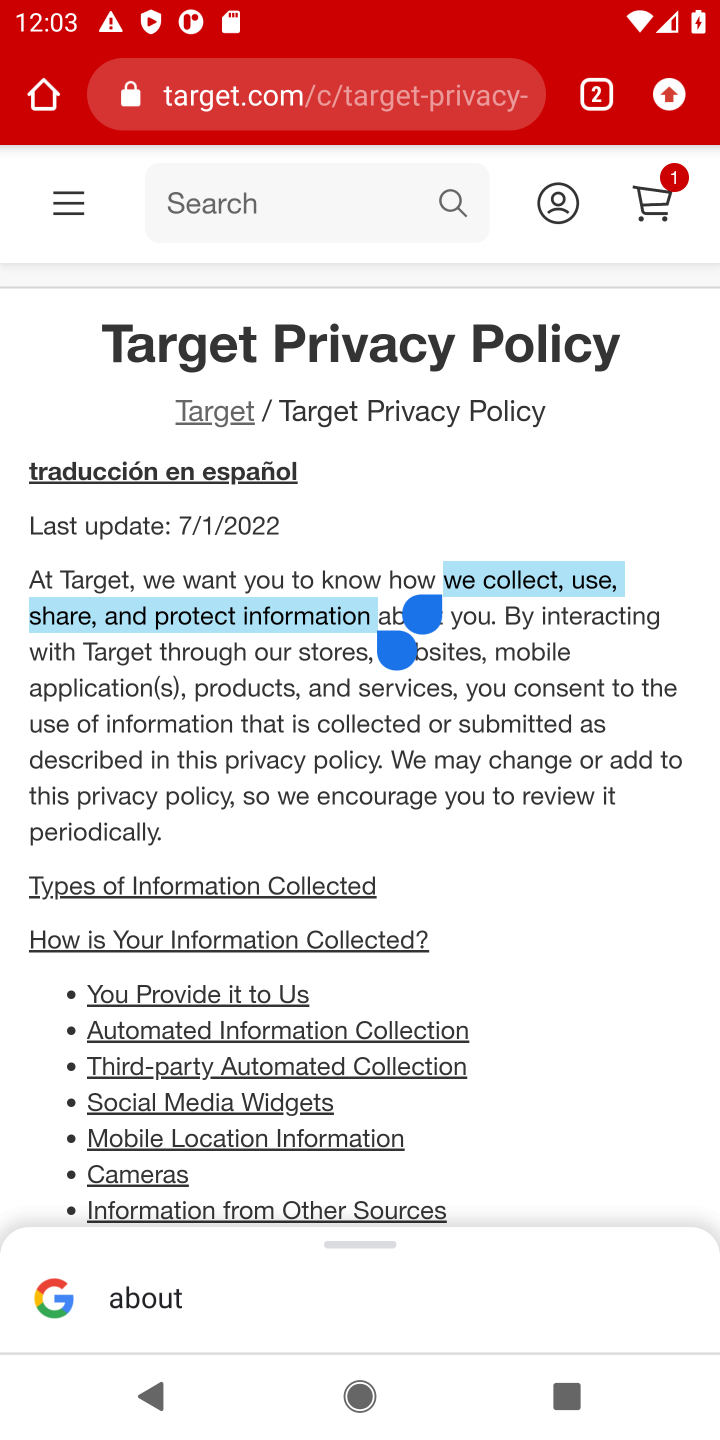
Step 30: task complete